Your task to perform on an android device: change alarm snooze length Image 0: 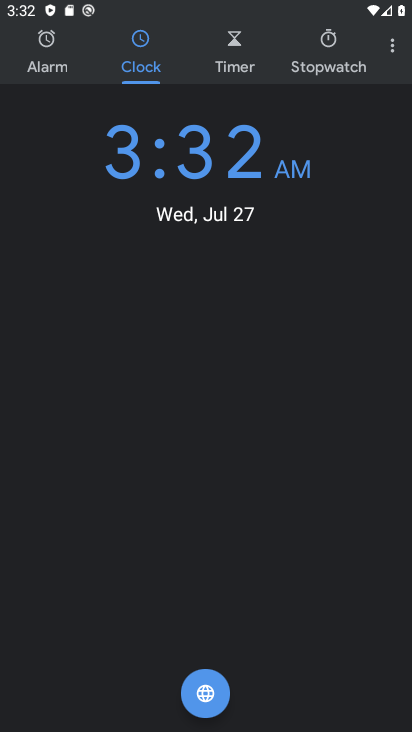
Step 0: click (404, 40)
Your task to perform on an android device: change alarm snooze length Image 1: 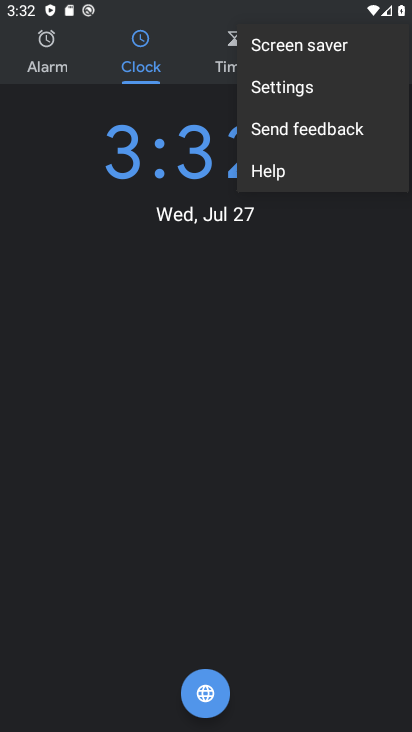
Step 1: click (328, 90)
Your task to perform on an android device: change alarm snooze length Image 2: 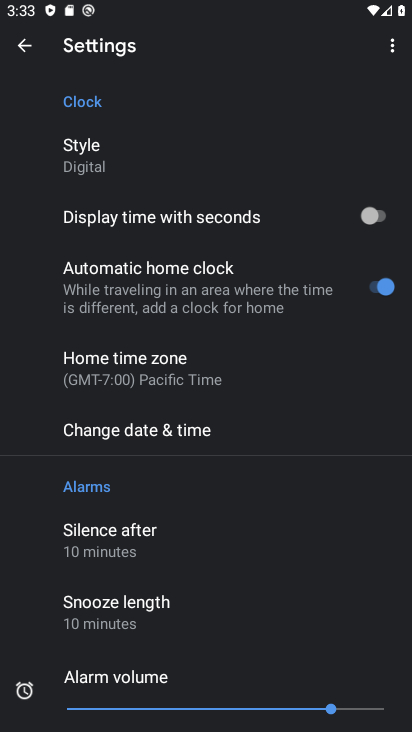
Step 2: click (171, 619)
Your task to perform on an android device: change alarm snooze length Image 3: 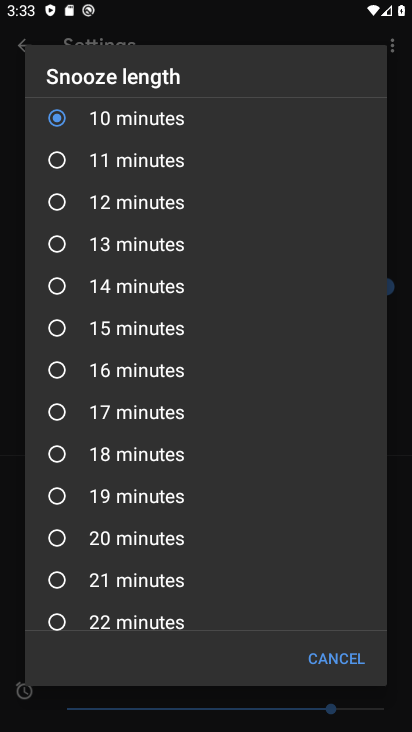
Step 3: click (119, 240)
Your task to perform on an android device: change alarm snooze length Image 4: 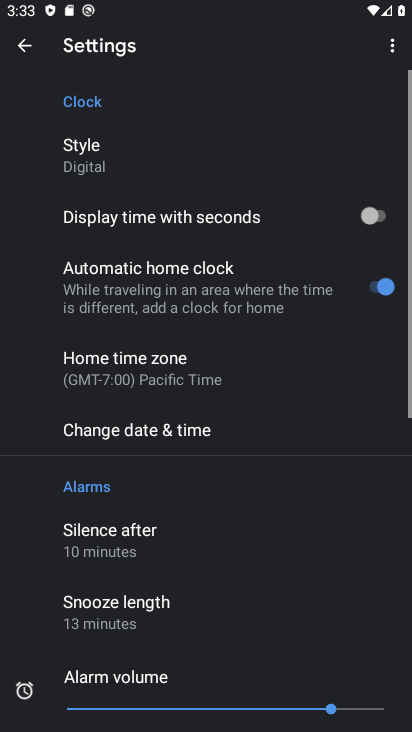
Step 4: task complete